Your task to perform on an android device: Empty the shopping cart on target. Add macbook air to the cart on target, then select checkout. Image 0: 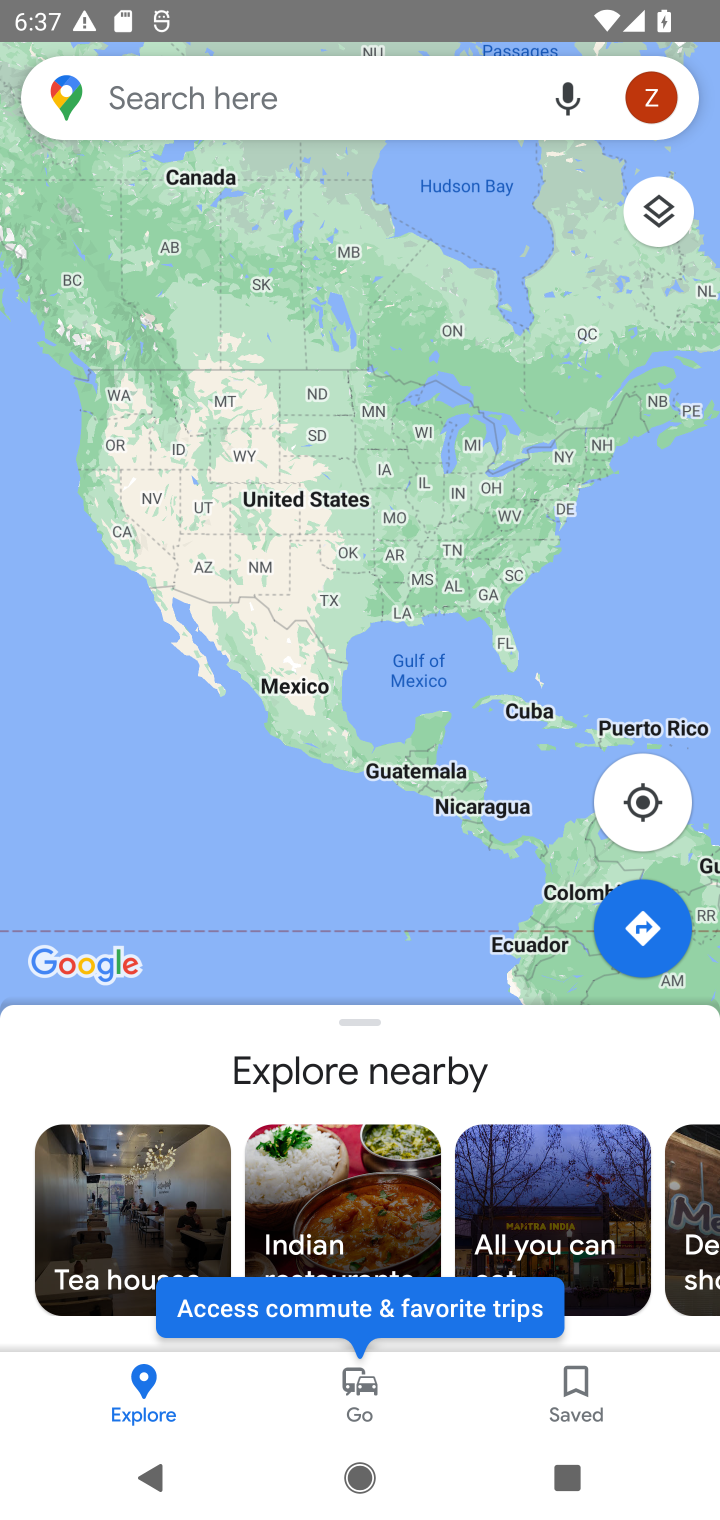
Step 0: press home button
Your task to perform on an android device: Empty the shopping cart on target. Add macbook air to the cart on target, then select checkout. Image 1: 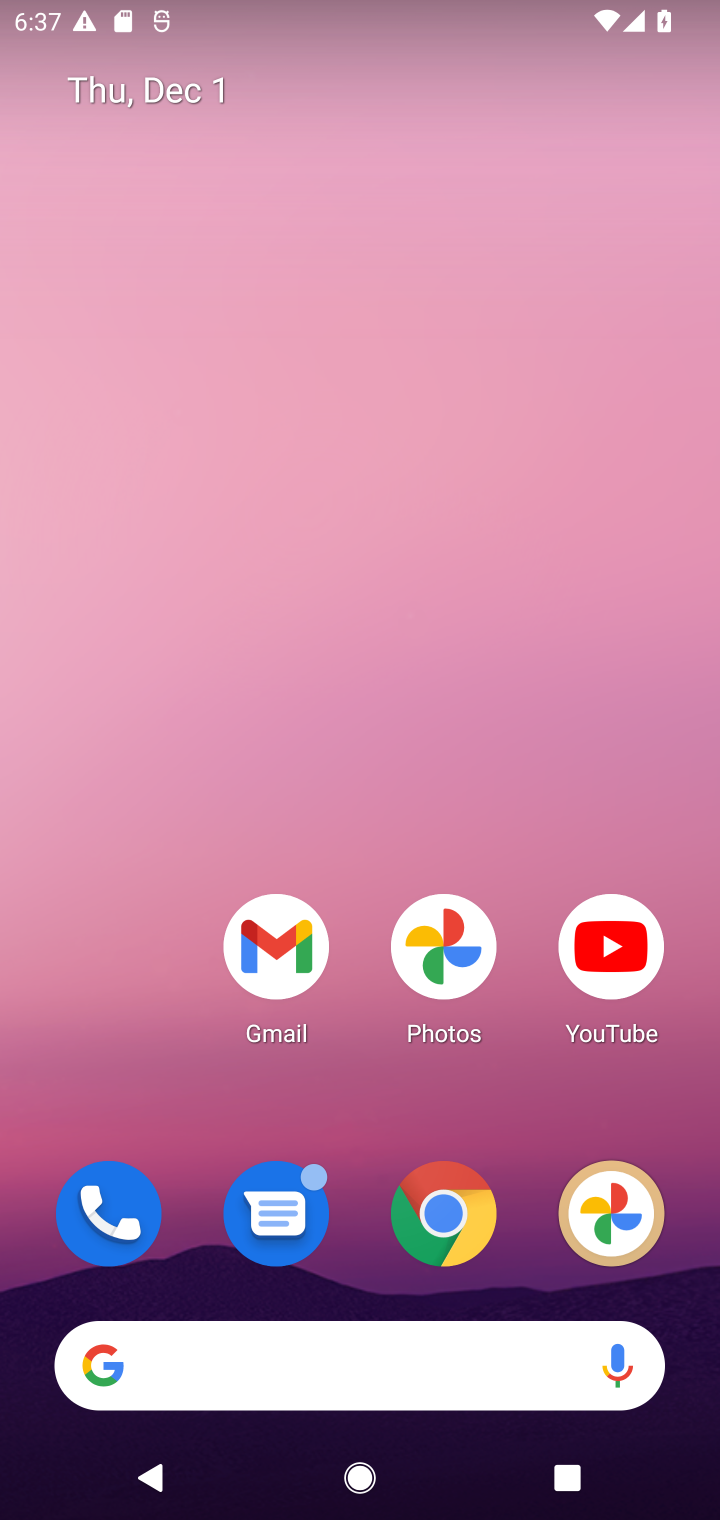
Step 1: click (477, 1362)
Your task to perform on an android device: Empty the shopping cart on target. Add macbook air to the cart on target, then select checkout. Image 2: 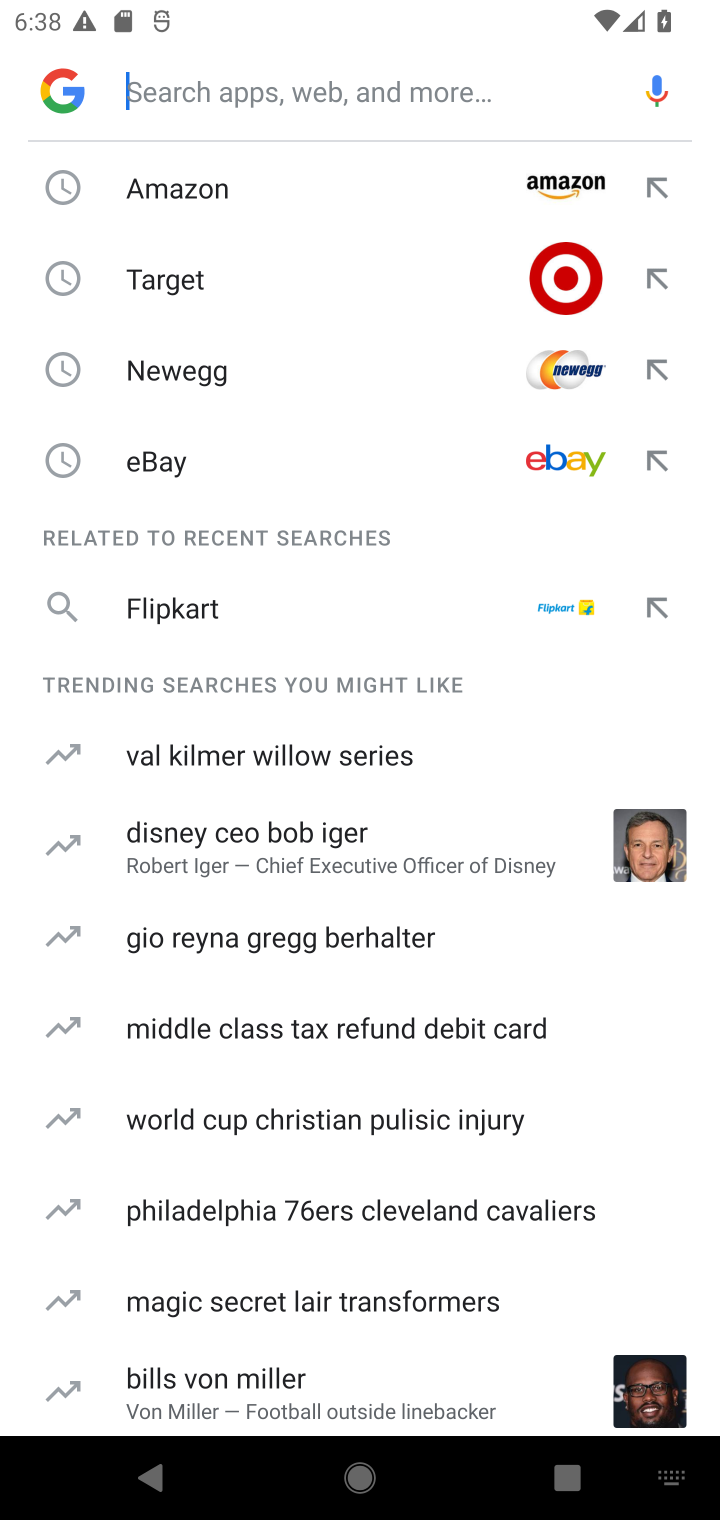
Step 2: click (258, 292)
Your task to perform on an android device: Empty the shopping cart on target. Add macbook air to the cart on target, then select checkout. Image 3: 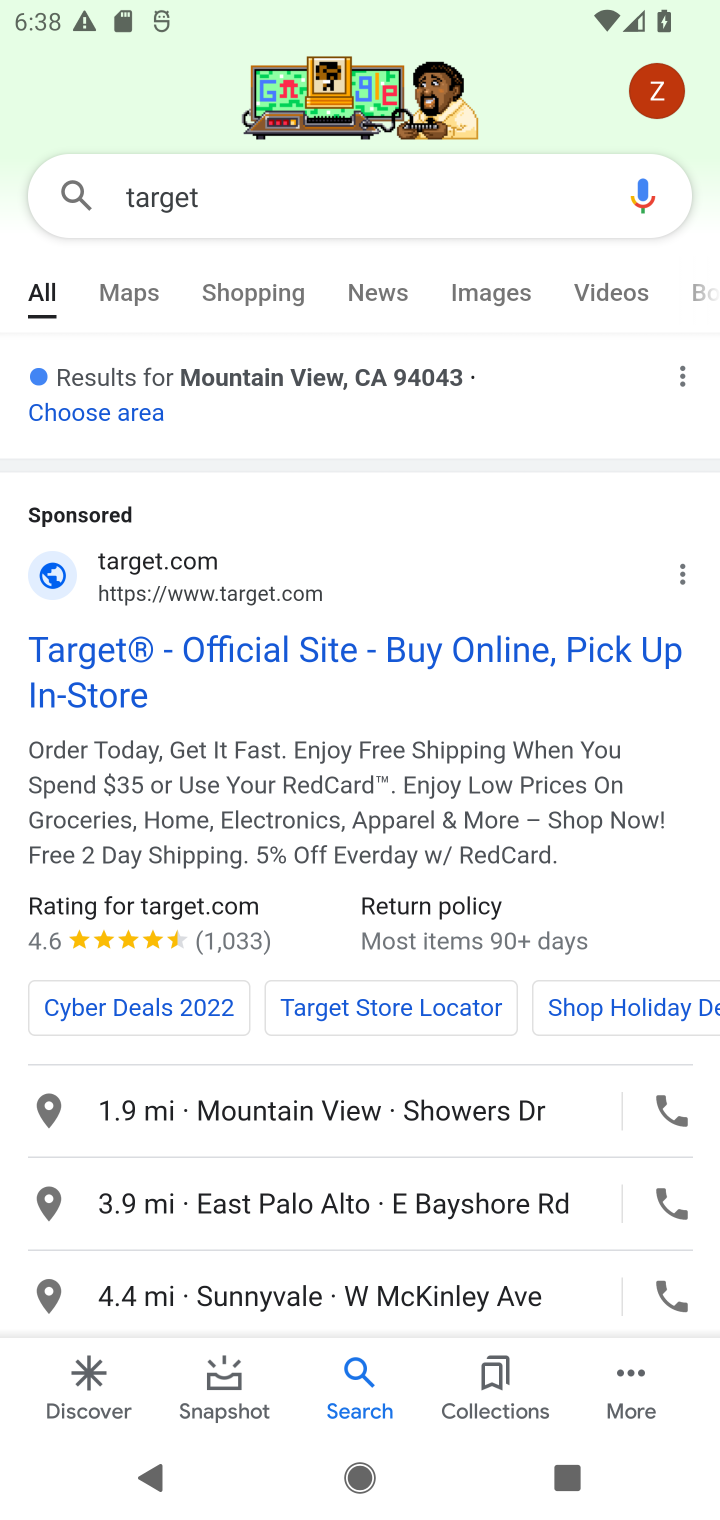
Step 3: click (207, 630)
Your task to perform on an android device: Empty the shopping cart on target. Add macbook air to the cart on target, then select checkout. Image 4: 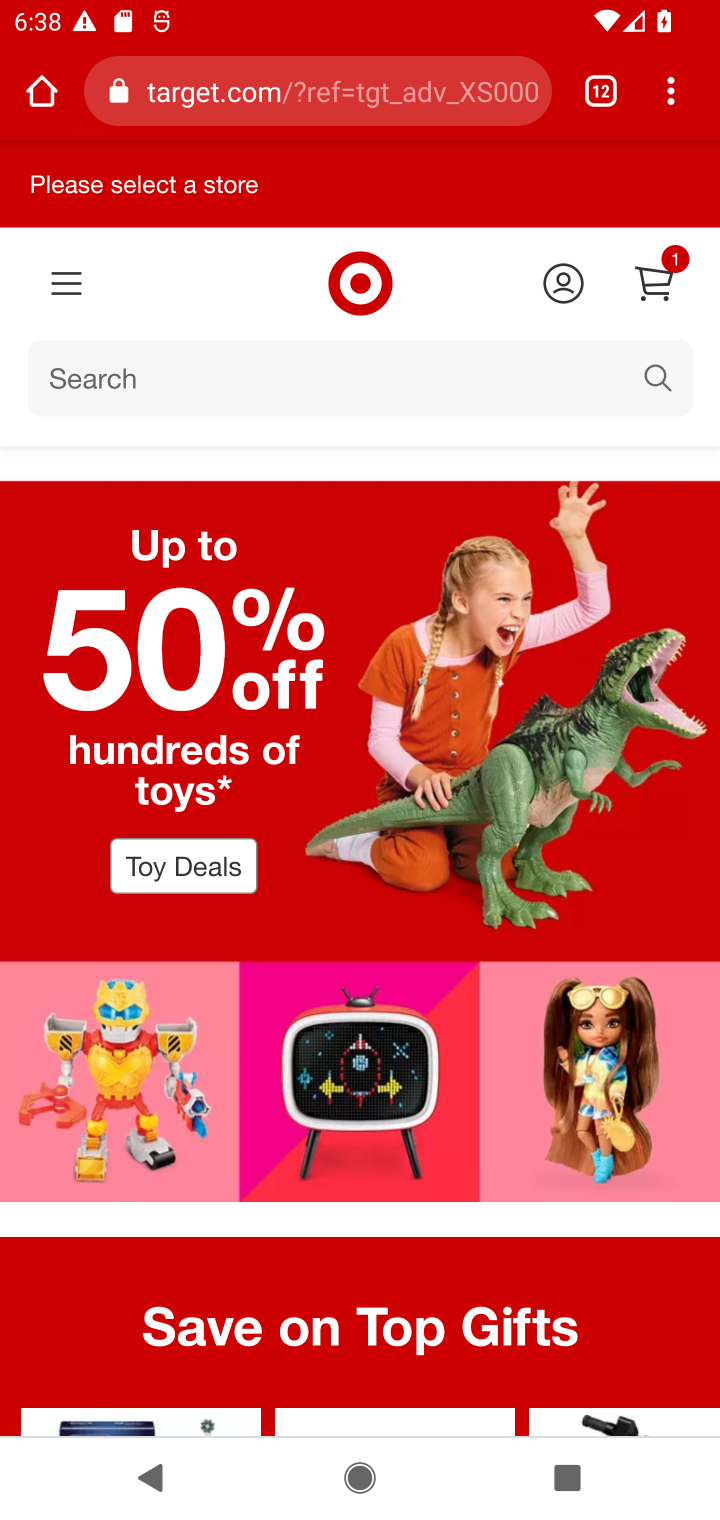
Step 4: click (368, 390)
Your task to perform on an android device: Empty the shopping cart on target. Add macbook air to the cart on target, then select checkout. Image 5: 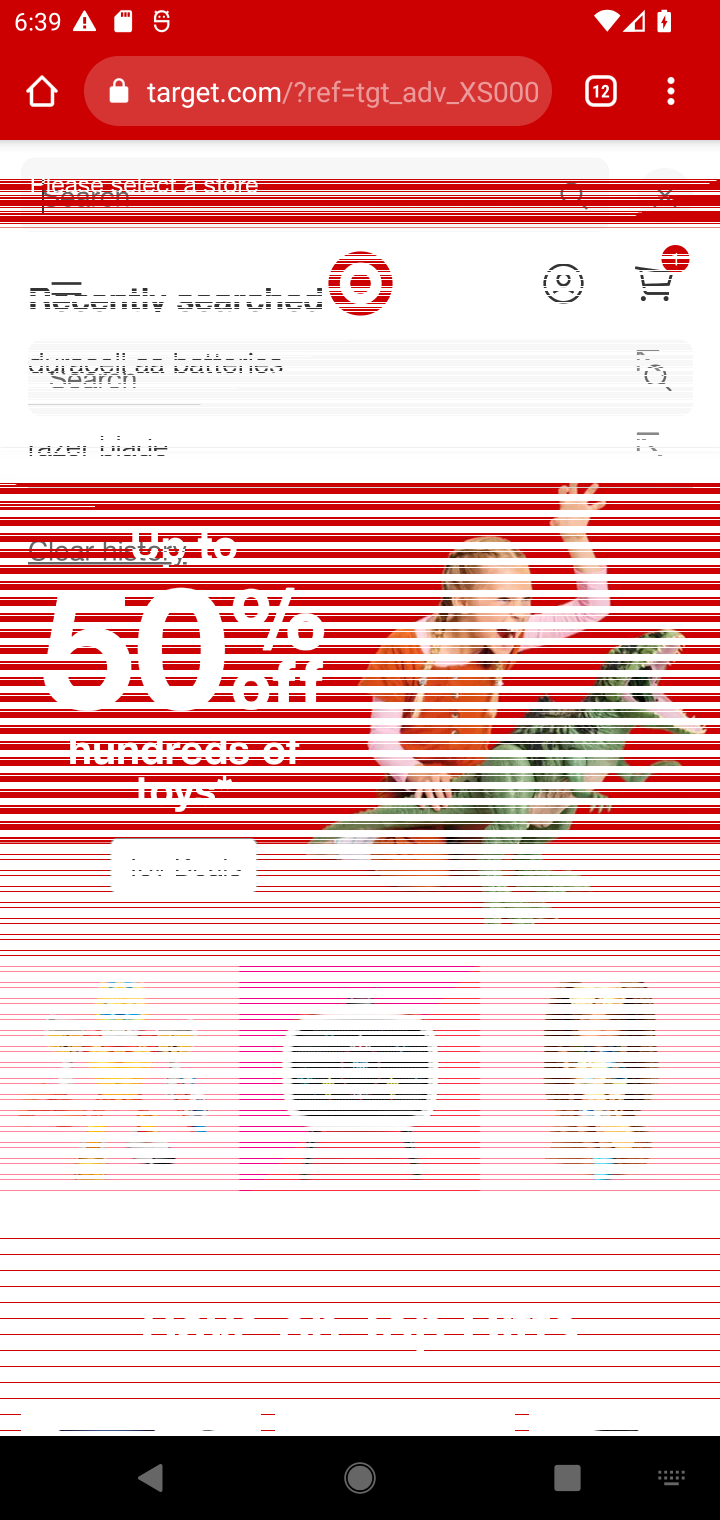
Step 5: click (654, 200)
Your task to perform on an android device: Empty the shopping cart on target. Add macbook air to the cart on target, then select checkout. Image 6: 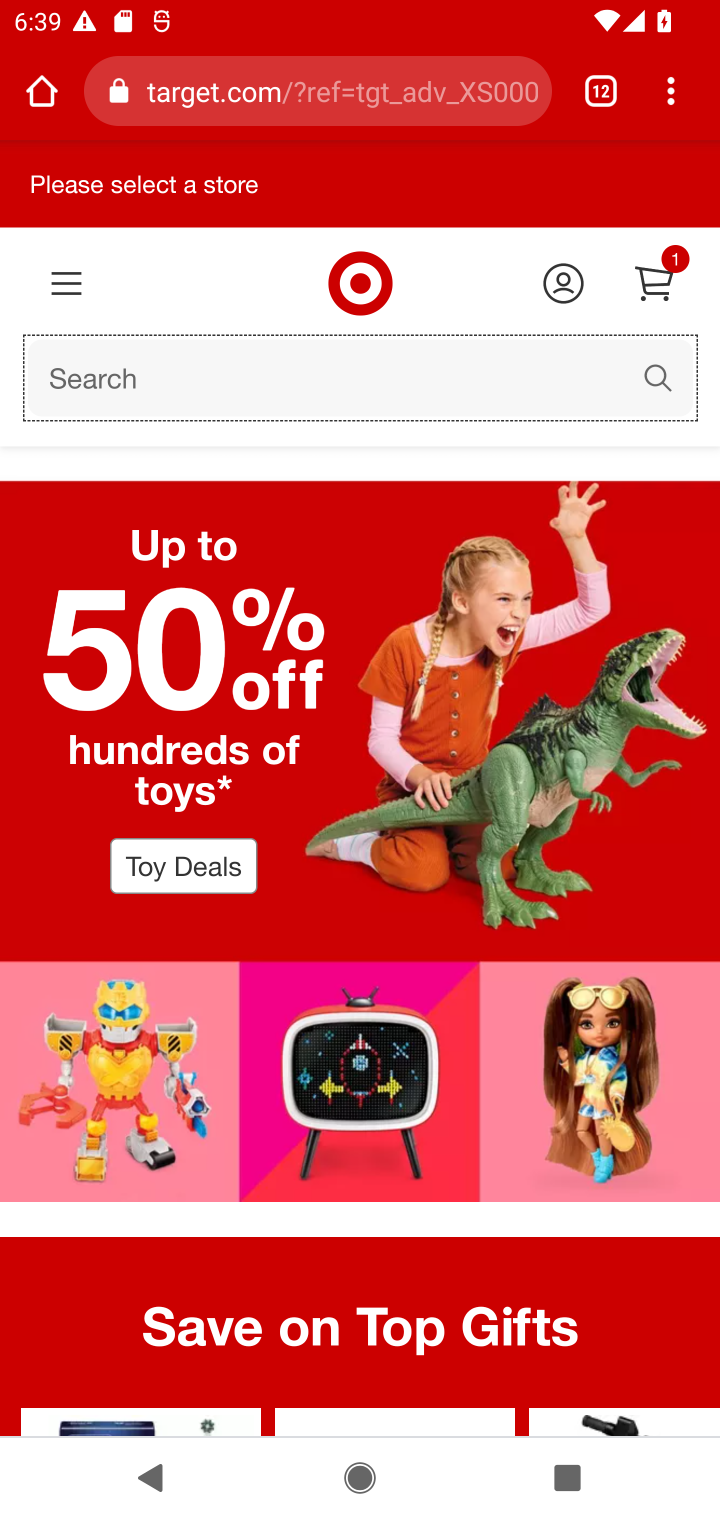
Step 6: click (644, 281)
Your task to perform on an android device: Empty the shopping cart on target. Add macbook air to the cart on target, then select checkout. Image 7: 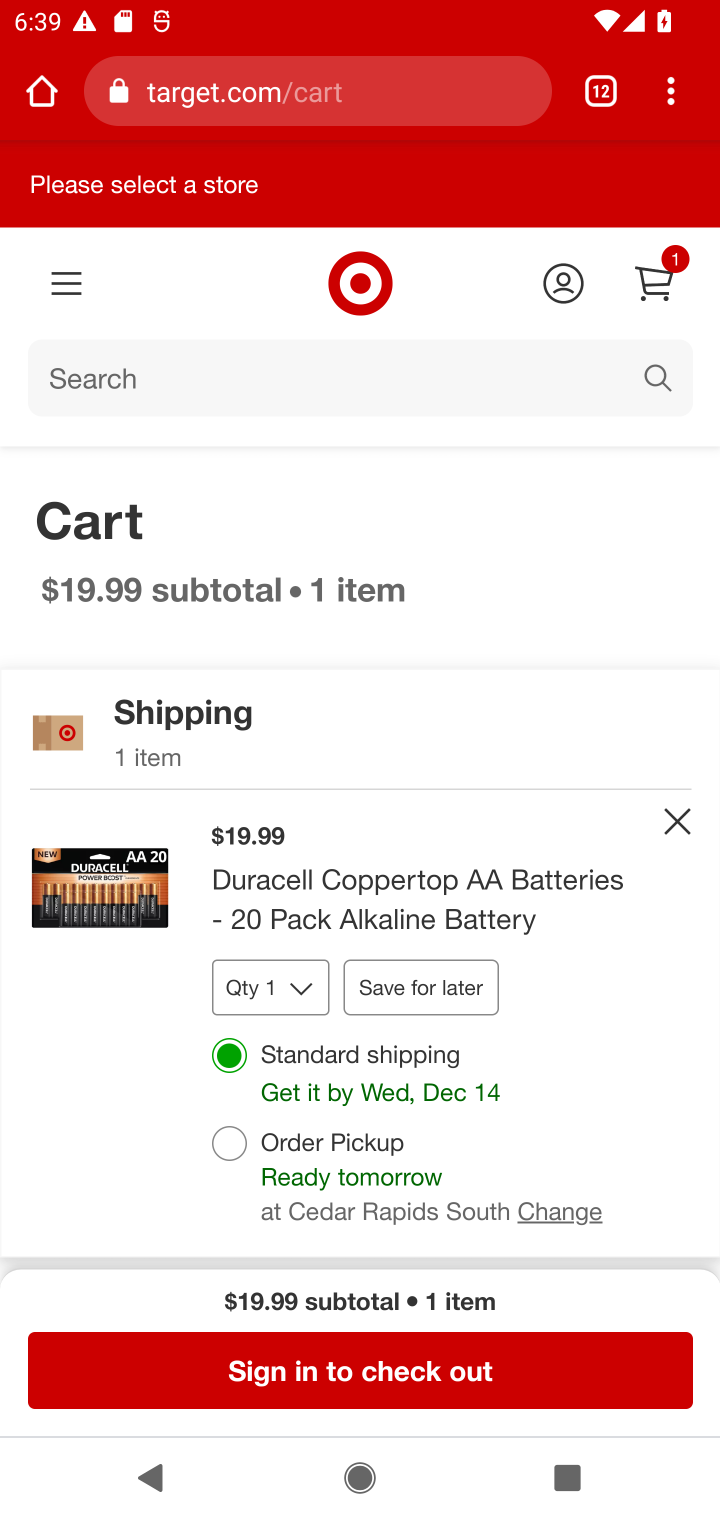
Step 7: click (675, 825)
Your task to perform on an android device: Empty the shopping cart on target. Add macbook air to the cart on target, then select checkout. Image 8: 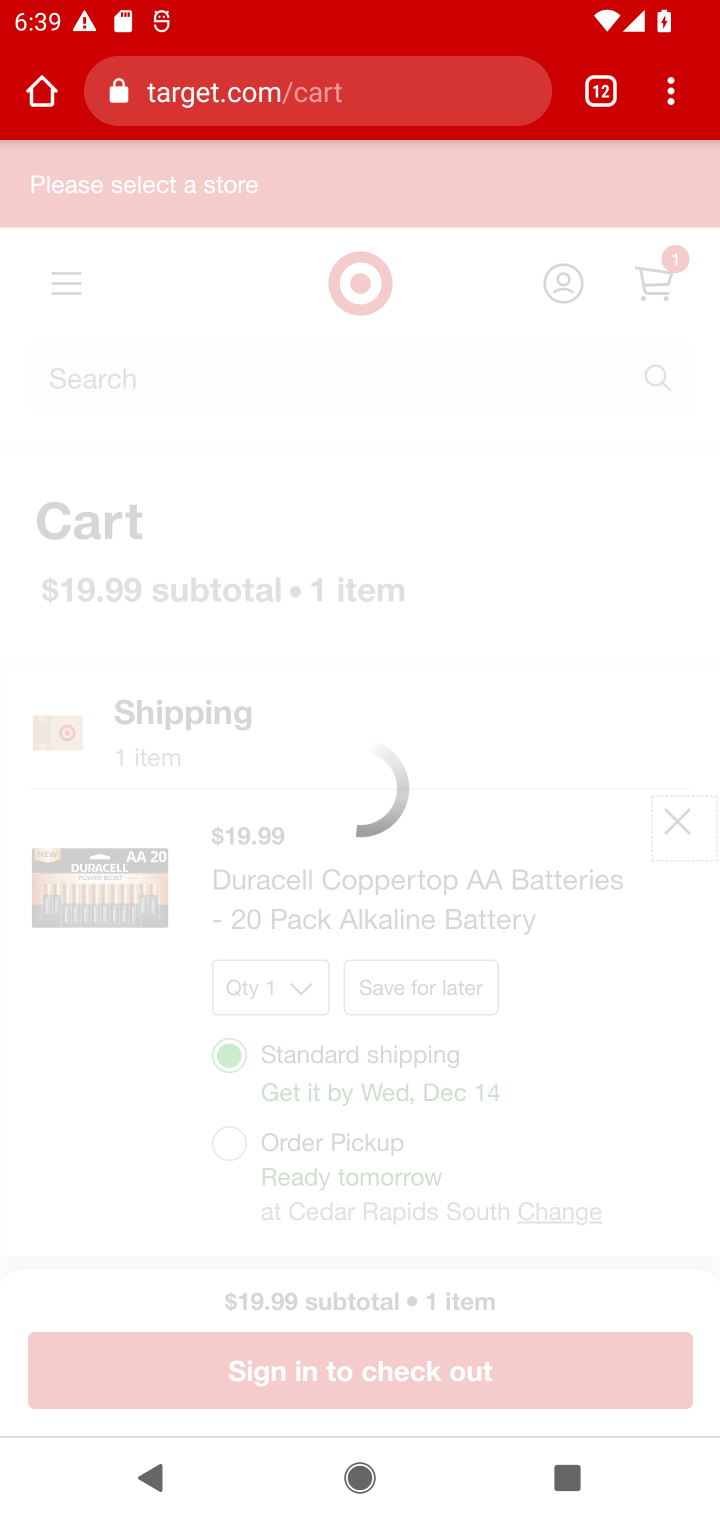
Step 8: task complete